Your task to perform on an android device: find which apps use the phone's location Image 0: 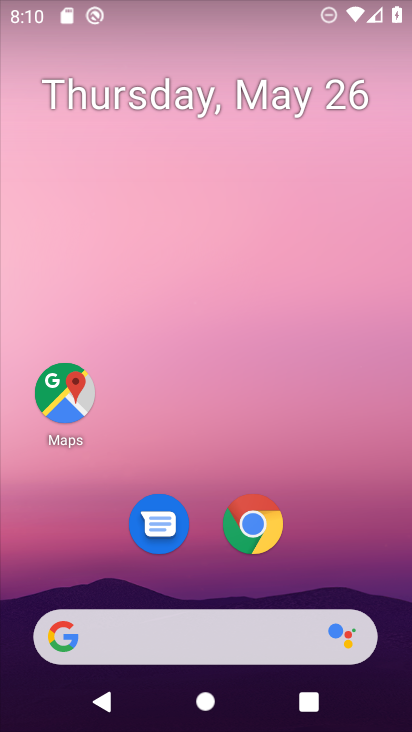
Step 0: drag from (239, 434) to (254, 33)
Your task to perform on an android device: find which apps use the phone's location Image 1: 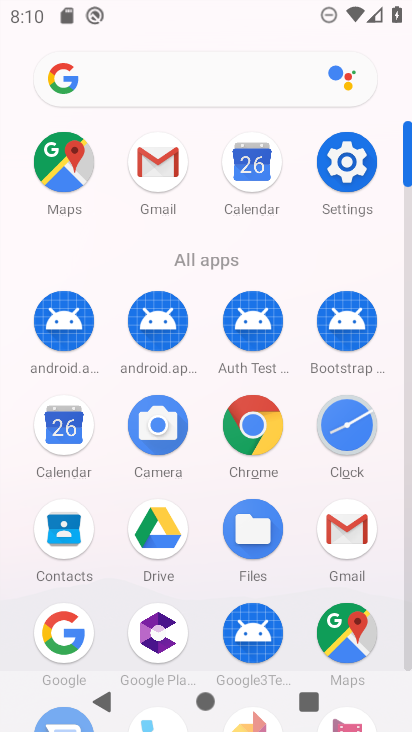
Step 1: click (338, 153)
Your task to perform on an android device: find which apps use the phone's location Image 2: 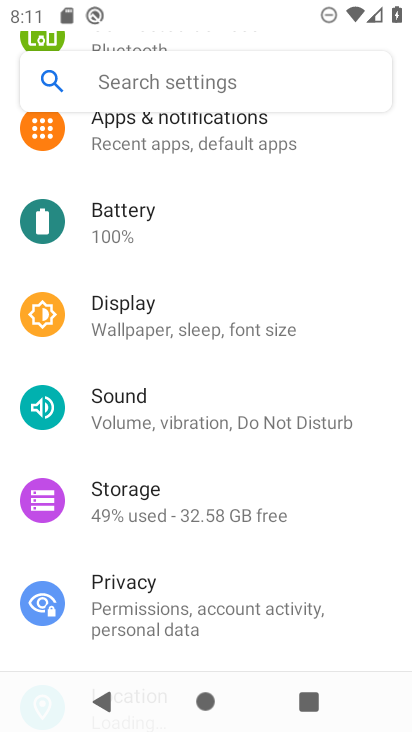
Step 2: drag from (227, 588) to (230, 240)
Your task to perform on an android device: find which apps use the phone's location Image 3: 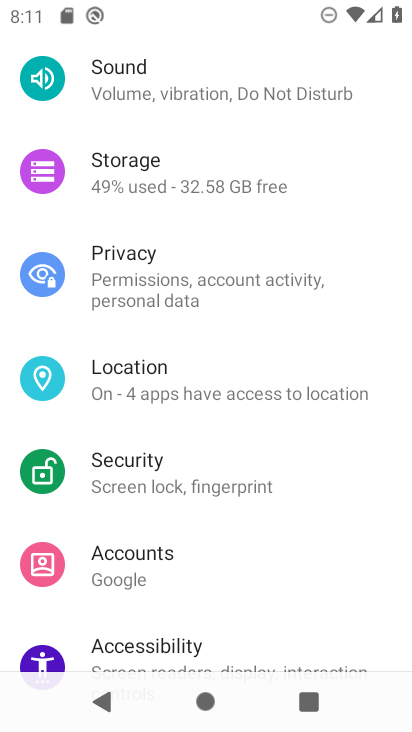
Step 3: click (208, 372)
Your task to perform on an android device: find which apps use the phone's location Image 4: 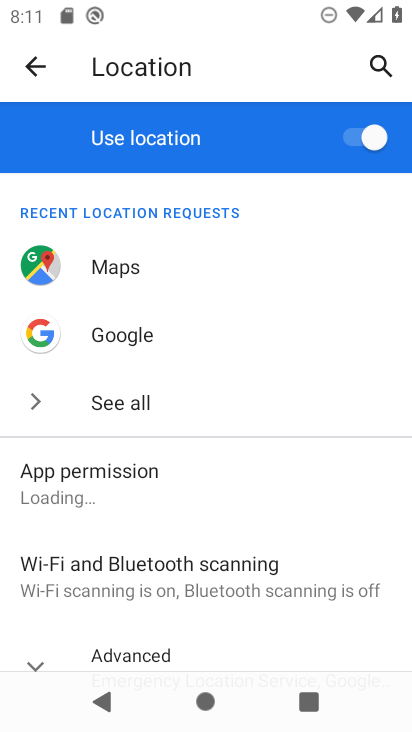
Step 4: click (187, 479)
Your task to perform on an android device: find which apps use the phone's location Image 5: 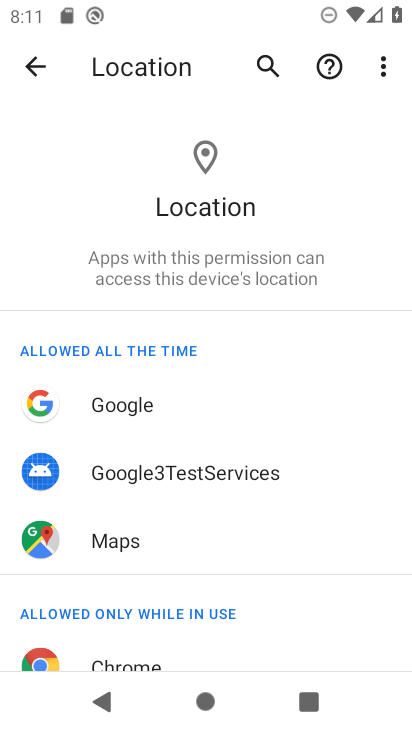
Step 5: task complete